Your task to perform on an android device: Go to display settings Image 0: 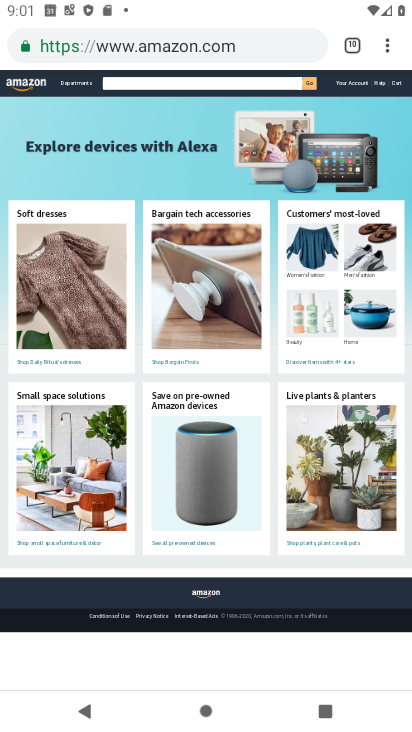
Step 0: press home button
Your task to perform on an android device: Go to display settings Image 1: 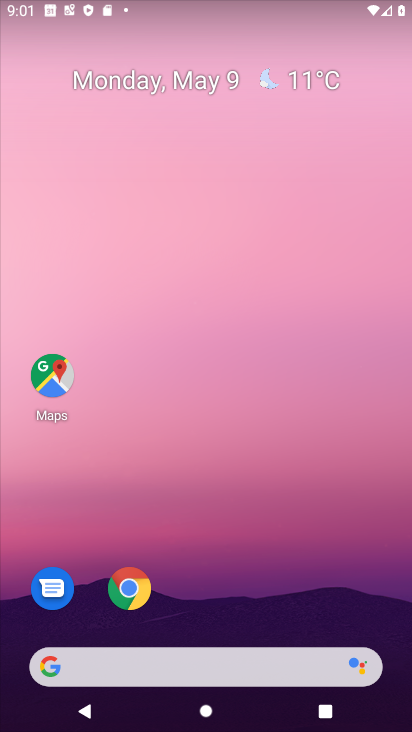
Step 1: drag from (182, 667) to (258, 222)
Your task to perform on an android device: Go to display settings Image 2: 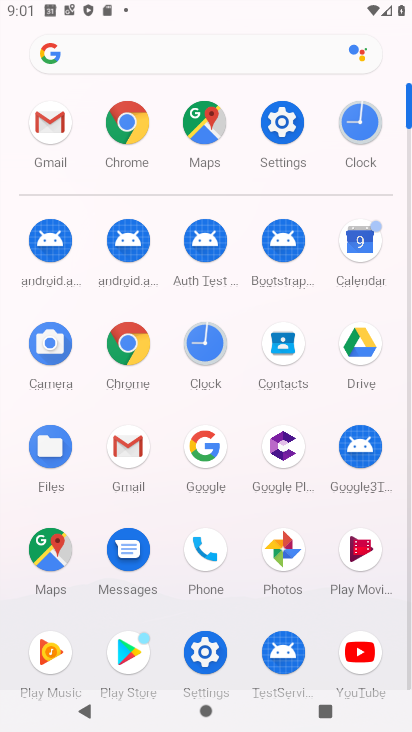
Step 2: click (288, 124)
Your task to perform on an android device: Go to display settings Image 3: 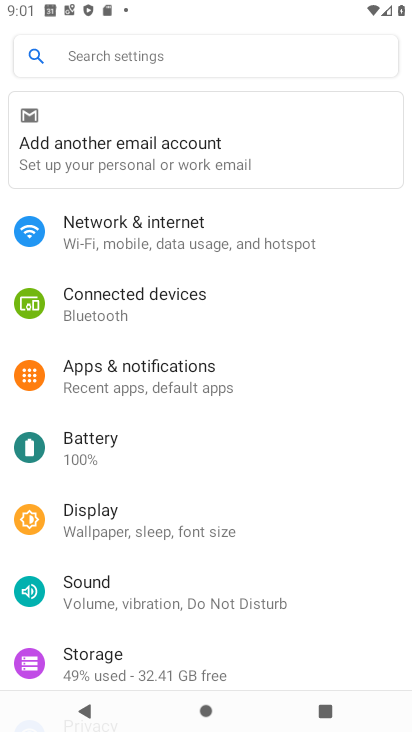
Step 3: click (135, 524)
Your task to perform on an android device: Go to display settings Image 4: 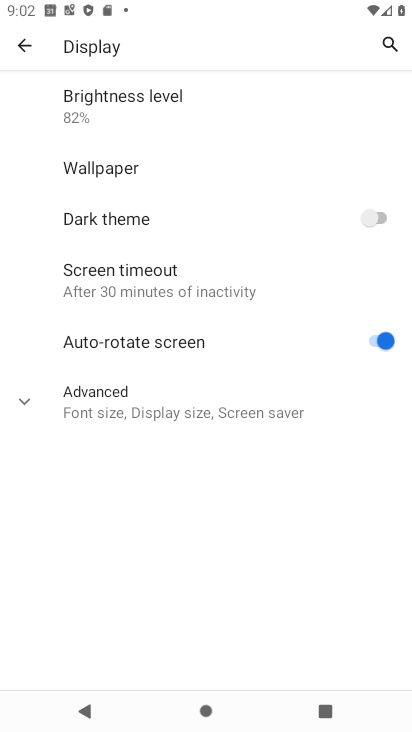
Step 4: task complete